Your task to perform on an android device: see sites visited before in the chrome app Image 0: 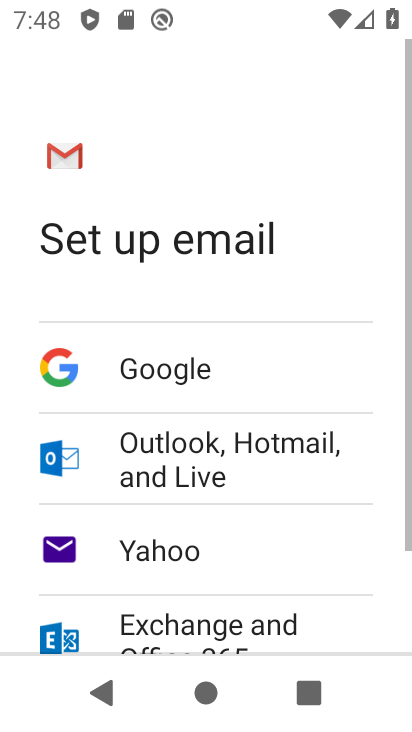
Step 0: press home button
Your task to perform on an android device: see sites visited before in the chrome app Image 1: 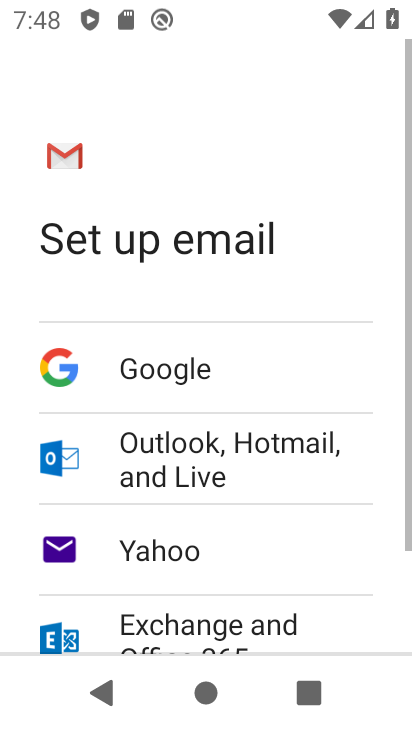
Step 1: press home button
Your task to perform on an android device: see sites visited before in the chrome app Image 2: 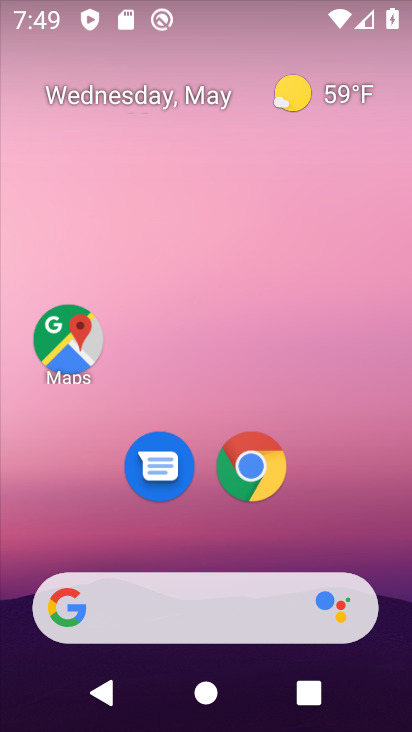
Step 2: drag from (312, 433) to (296, 225)
Your task to perform on an android device: see sites visited before in the chrome app Image 3: 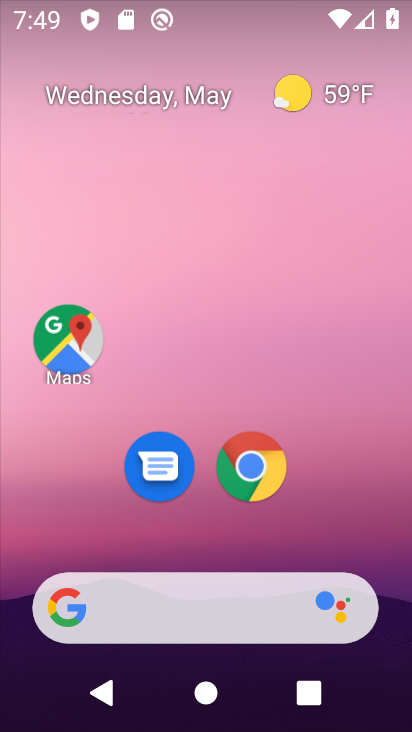
Step 3: drag from (319, 459) to (349, 98)
Your task to perform on an android device: see sites visited before in the chrome app Image 4: 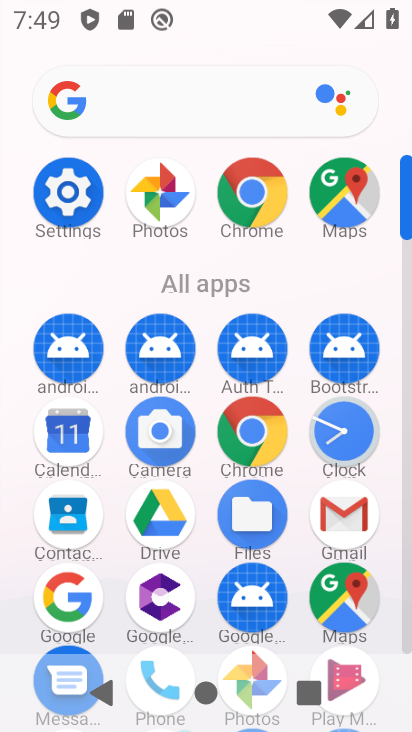
Step 4: click (255, 192)
Your task to perform on an android device: see sites visited before in the chrome app Image 5: 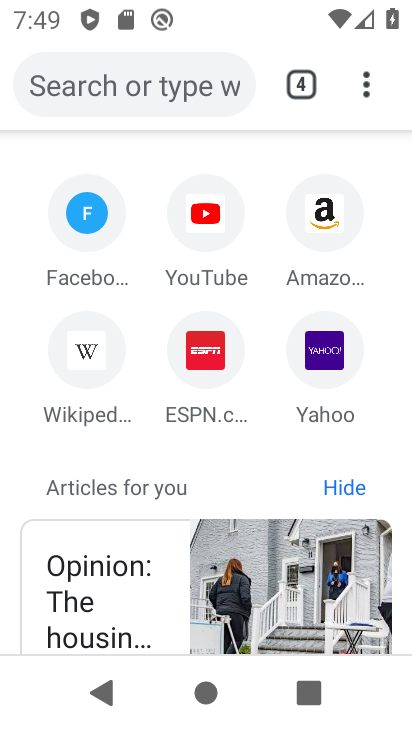
Step 5: click (357, 84)
Your task to perform on an android device: see sites visited before in the chrome app Image 6: 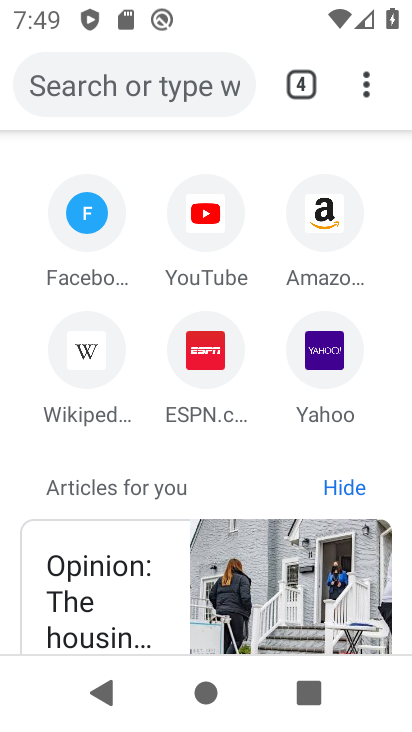
Step 6: click (348, 82)
Your task to perform on an android device: see sites visited before in the chrome app Image 7: 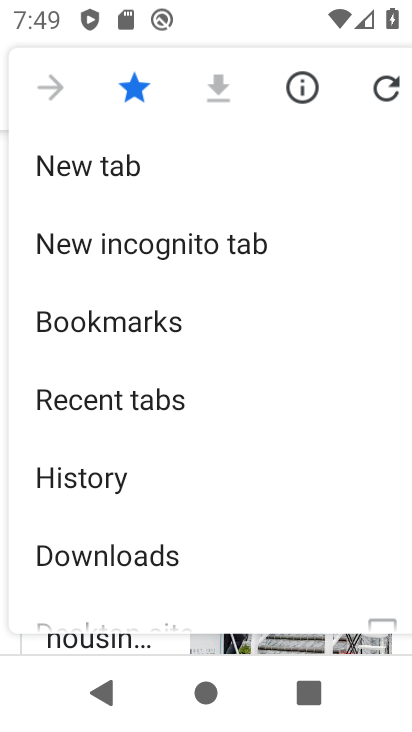
Step 7: click (103, 486)
Your task to perform on an android device: see sites visited before in the chrome app Image 8: 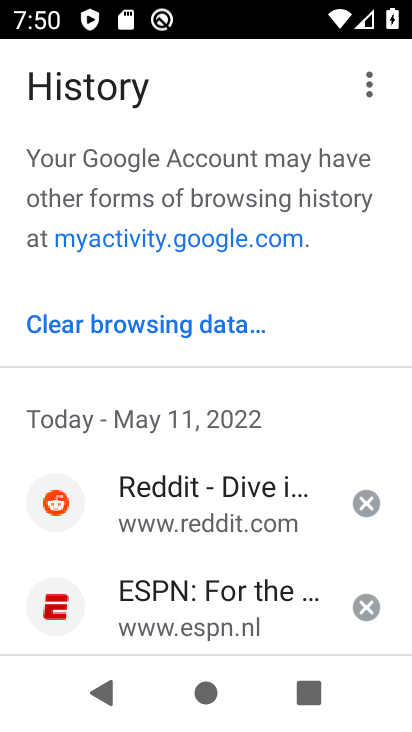
Step 8: task complete